Your task to perform on an android device: turn on showing notifications on the lock screen Image 0: 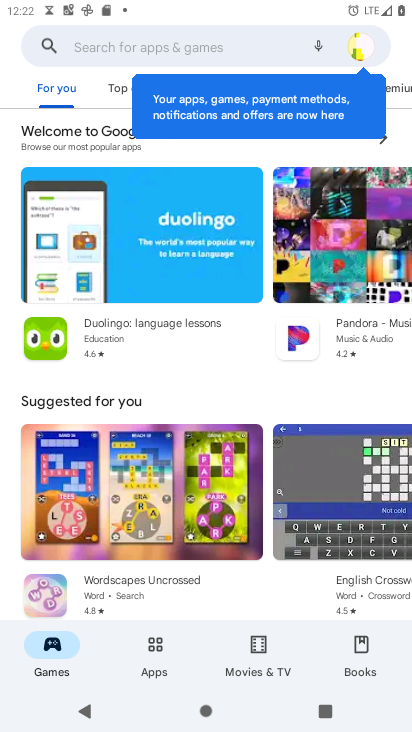
Step 0: press home button
Your task to perform on an android device: turn on showing notifications on the lock screen Image 1: 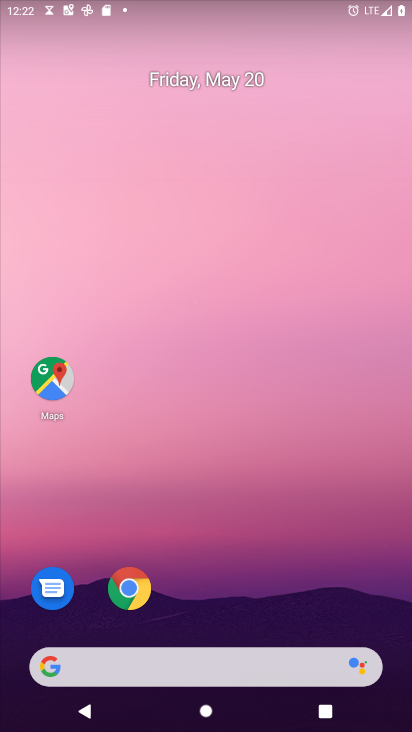
Step 1: drag from (273, 588) to (175, 50)
Your task to perform on an android device: turn on showing notifications on the lock screen Image 2: 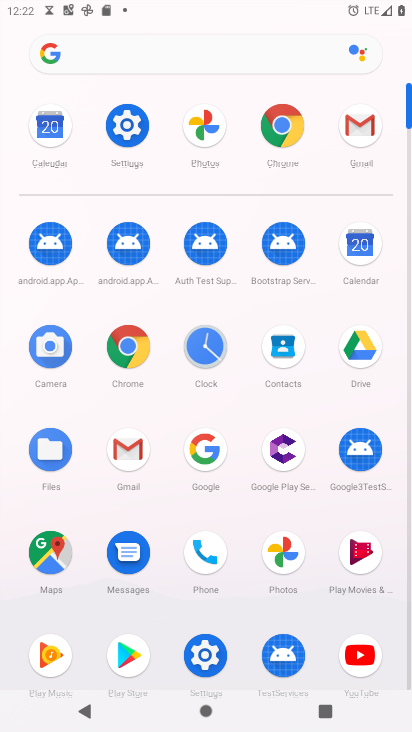
Step 2: click (137, 138)
Your task to perform on an android device: turn on showing notifications on the lock screen Image 3: 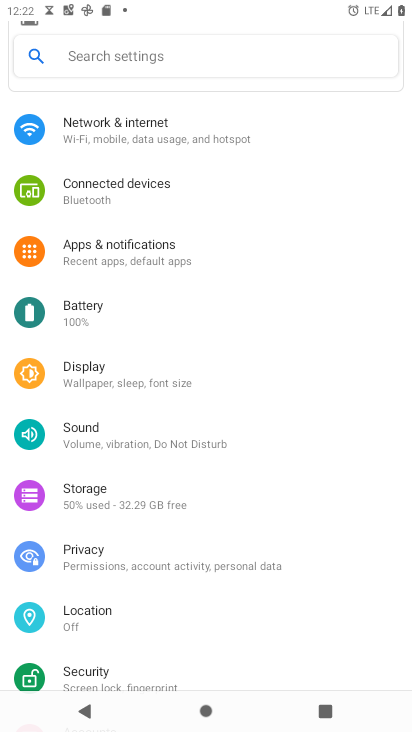
Step 3: click (161, 239)
Your task to perform on an android device: turn on showing notifications on the lock screen Image 4: 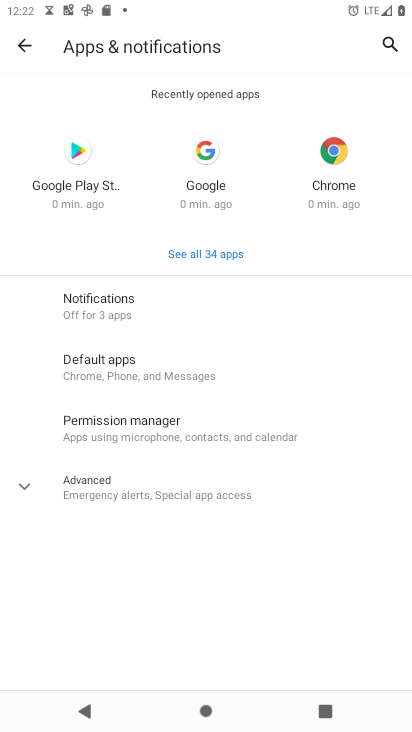
Step 4: click (155, 322)
Your task to perform on an android device: turn on showing notifications on the lock screen Image 5: 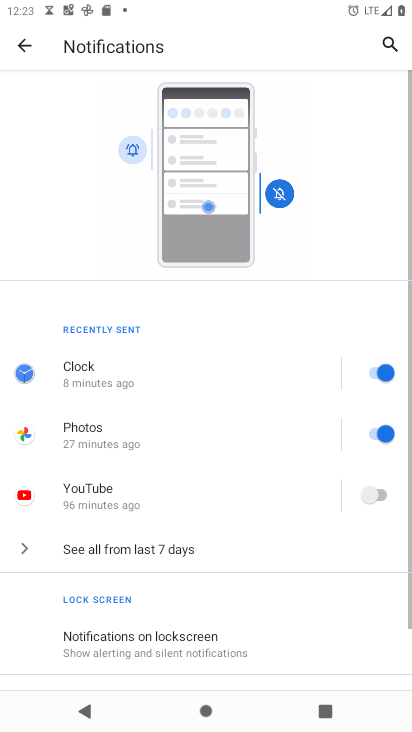
Step 5: drag from (229, 577) to (222, 113)
Your task to perform on an android device: turn on showing notifications on the lock screen Image 6: 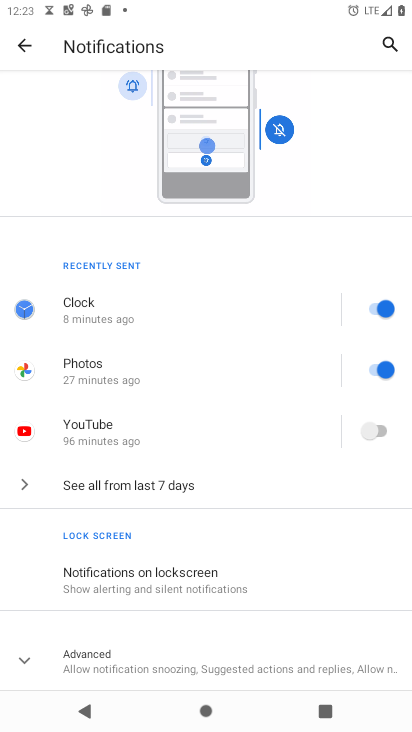
Step 6: click (209, 573)
Your task to perform on an android device: turn on showing notifications on the lock screen Image 7: 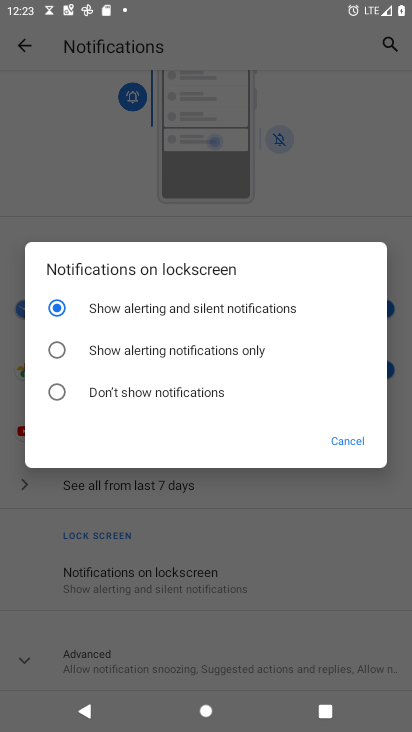
Step 7: task complete